Your task to perform on an android device: set the timer Image 0: 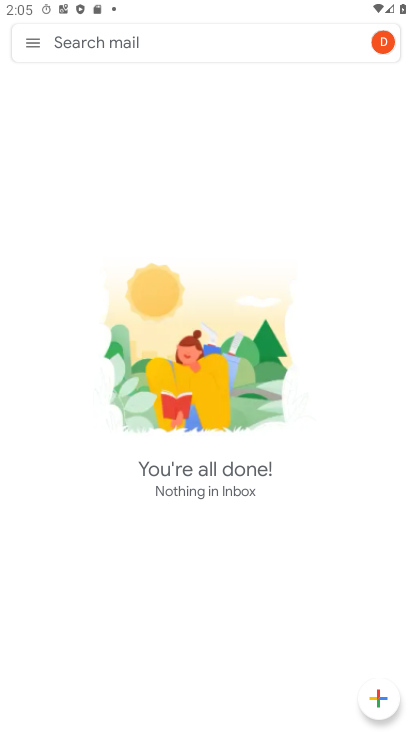
Step 0: press home button
Your task to perform on an android device: set the timer Image 1: 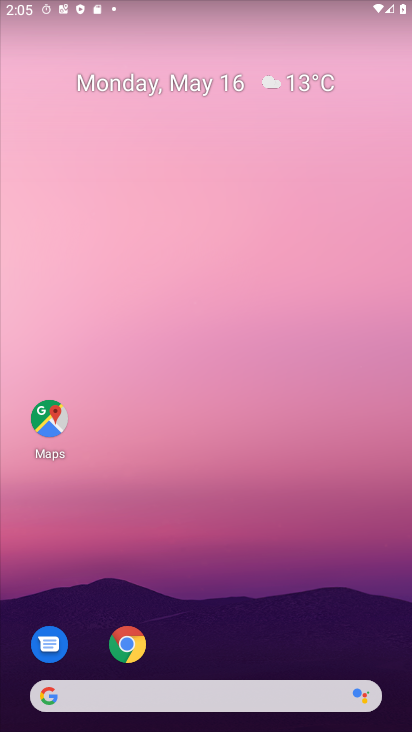
Step 1: drag from (241, 638) to (264, 94)
Your task to perform on an android device: set the timer Image 2: 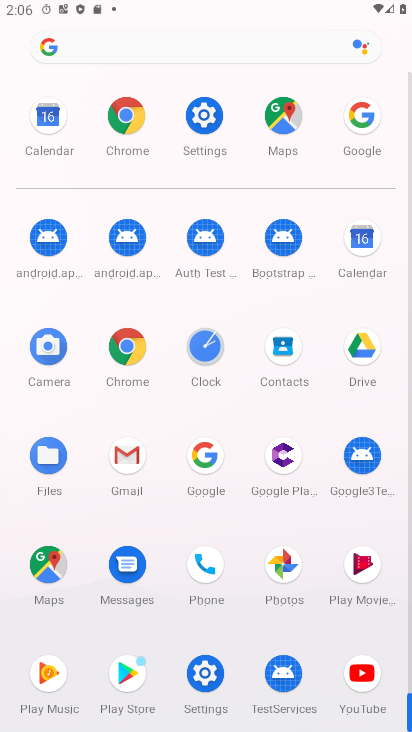
Step 2: click (204, 336)
Your task to perform on an android device: set the timer Image 3: 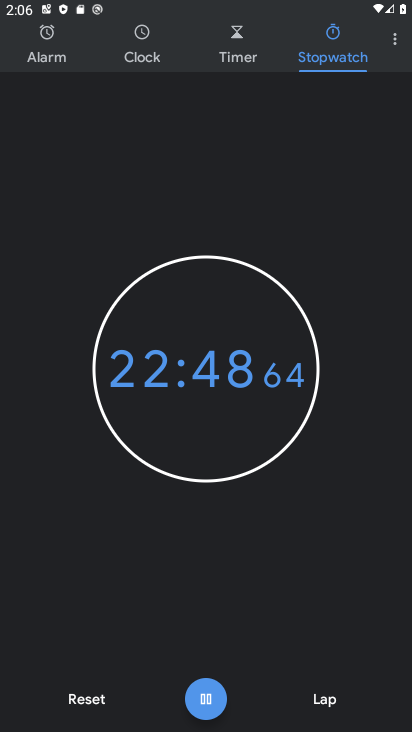
Step 3: click (239, 57)
Your task to perform on an android device: set the timer Image 4: 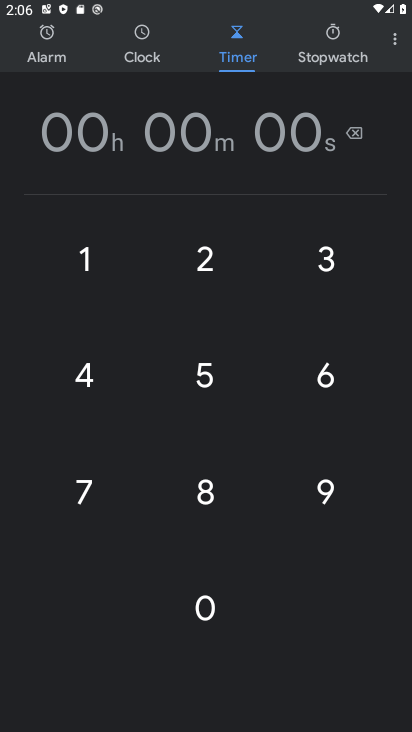
Step 4: click (199, 255)
Your task to perform on an android device: set the timer Image 5: 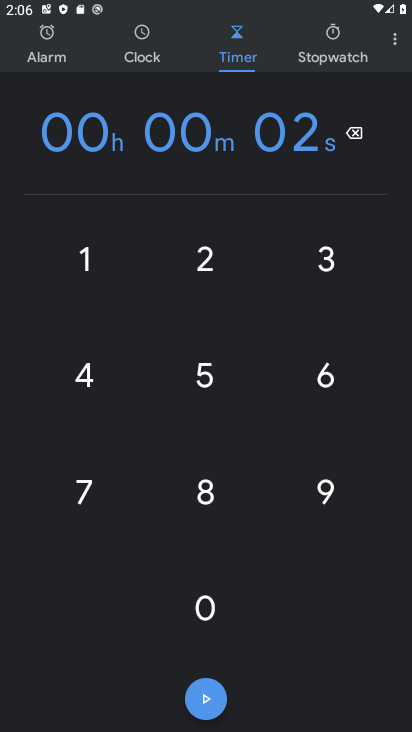
Step 5: click (217, 700)
Your task to perform on an android device: set the timer Image 6: 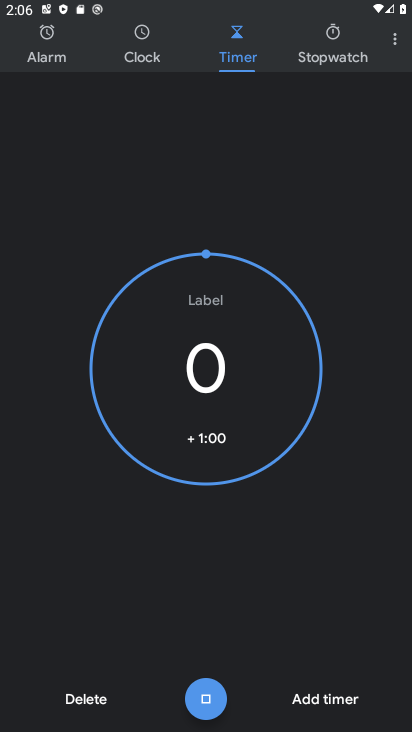
Step 6: task complete